Your task to perform on an android device: Open Youtube and go to "Your channel" Image 0: 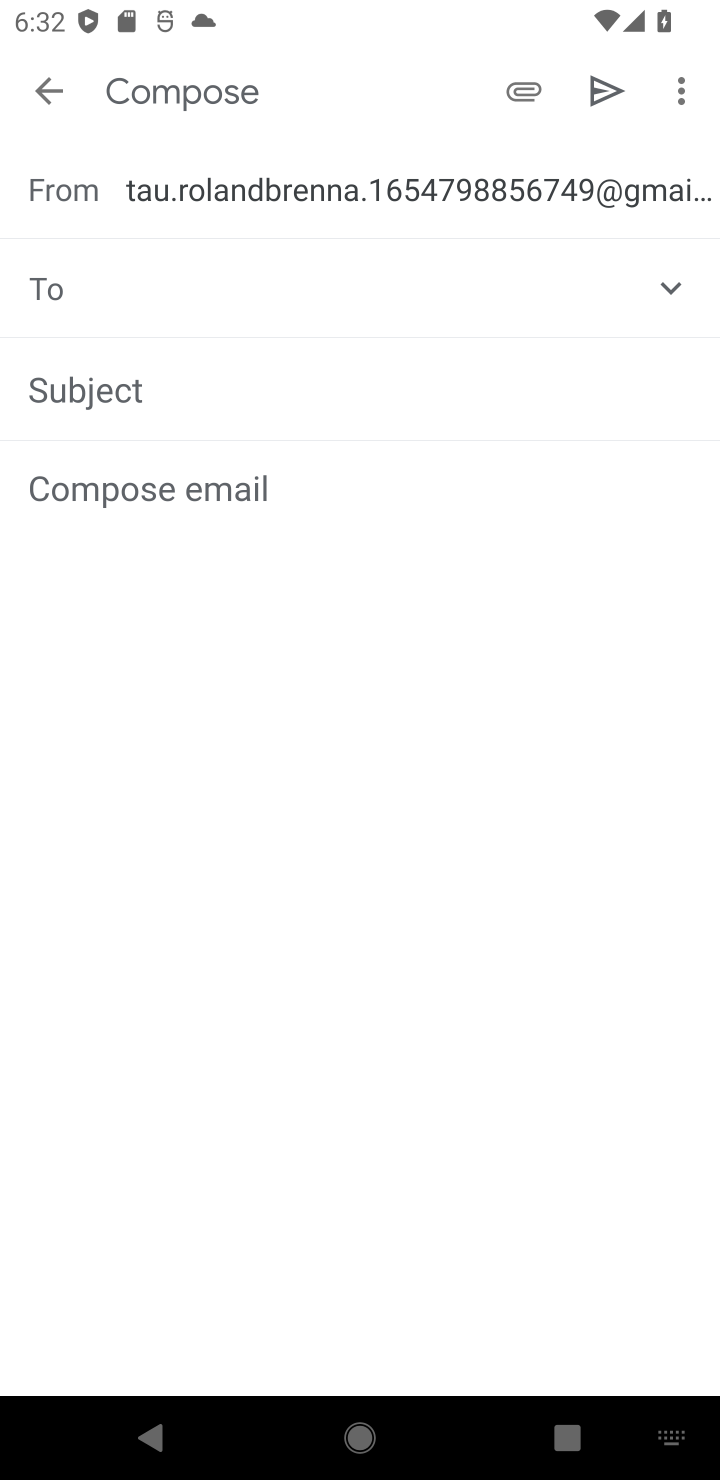
Step 0: press home button
Your task to perform on an android device: Open Youtube and go to "Your channel" Image 1: 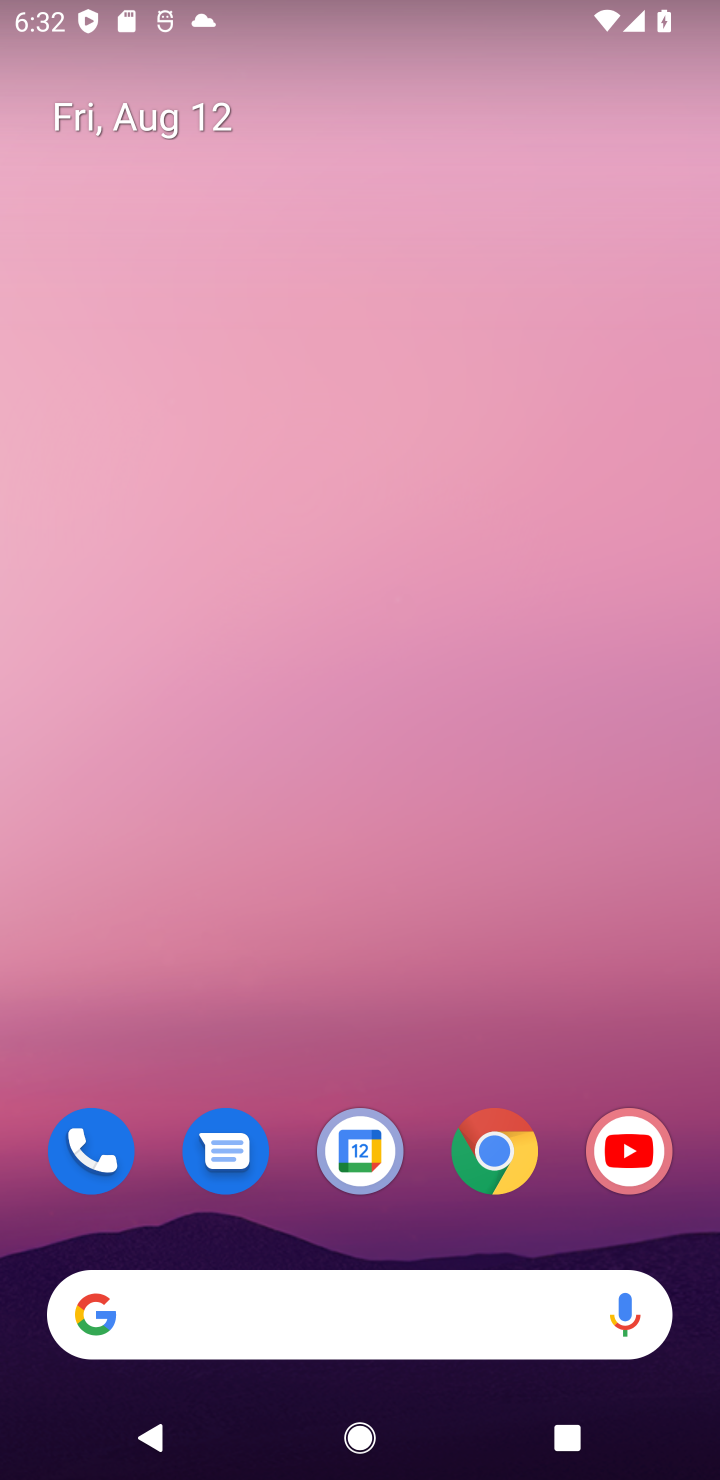
Step 1: drag from (421, 1056) to (383, 627)
Your task to perform on an android device: Open Youtube and go to "Your channel" Image 2: 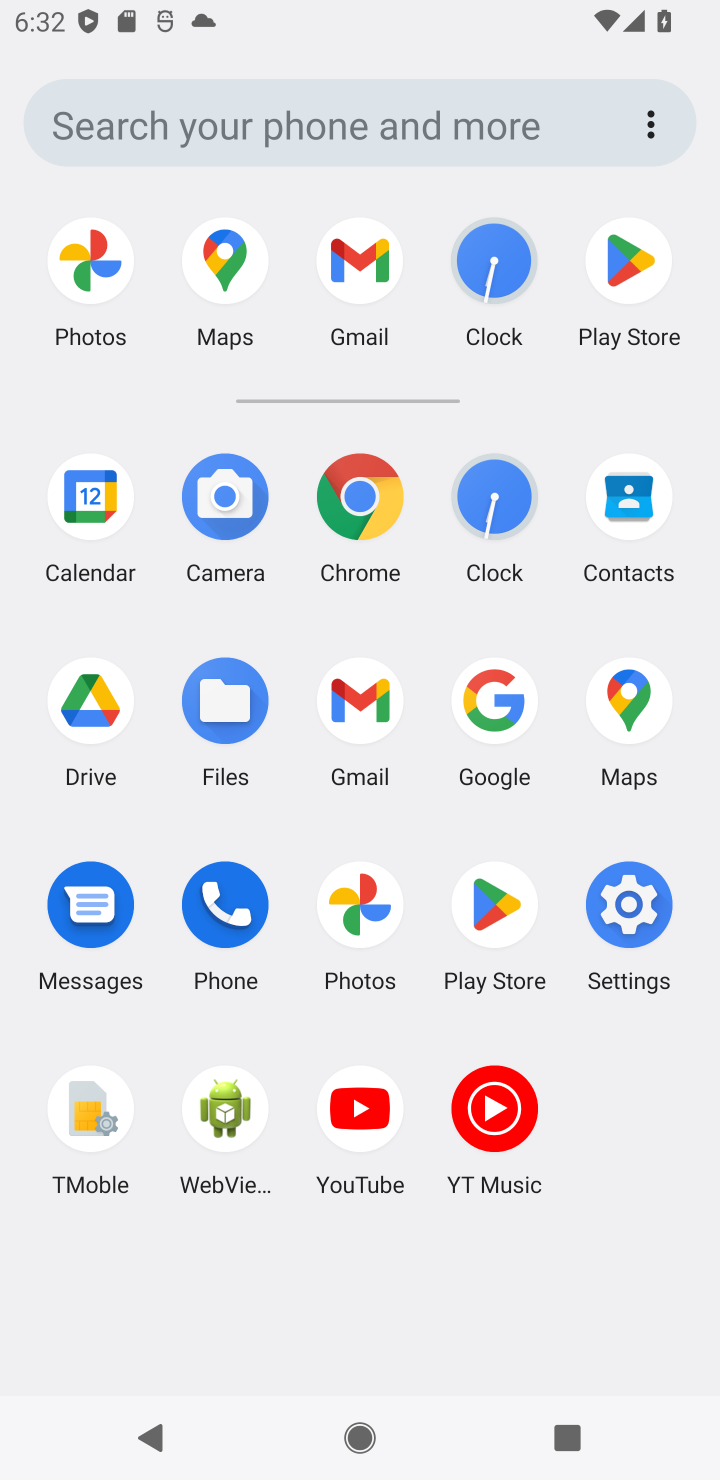
Step 2: click (363, 1102)
Your task to perform on an android device: Open Youtube and go to "Your channel" Image 3: 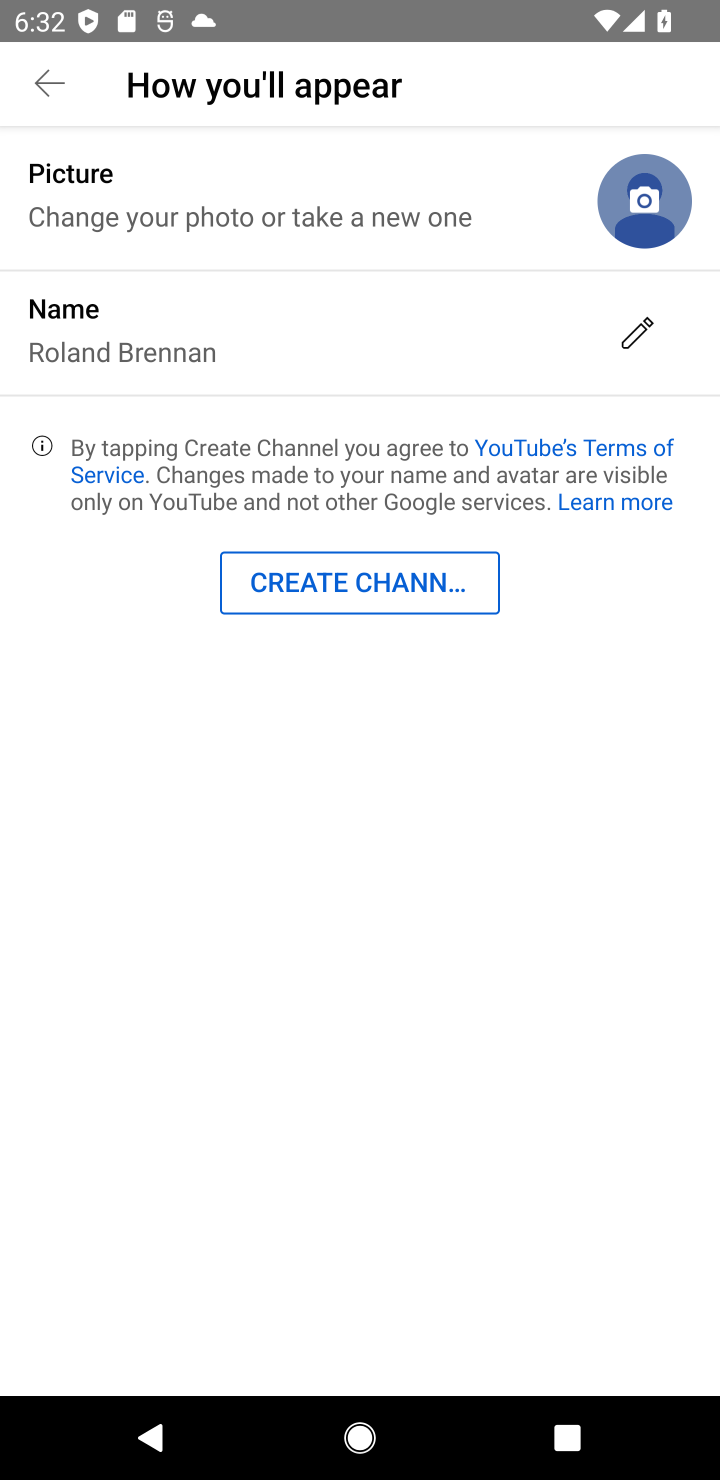
Step 3: task complete